Your task to perform on an android device: turn off location Image 0: 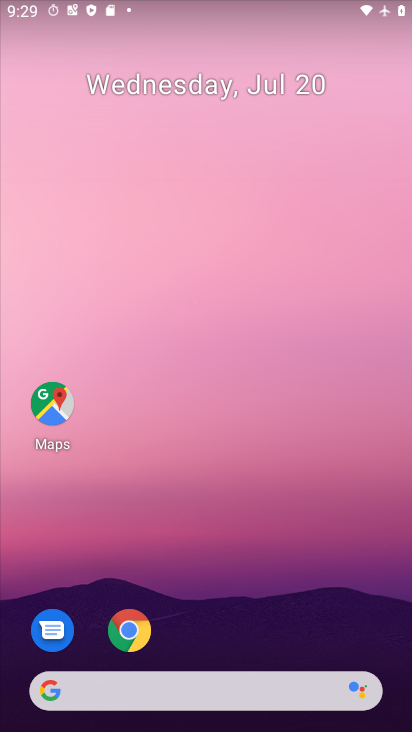
Step 0: drag from (196, 648) to (197, 201)
Your task to perform on an android device: turn off location Image 1: 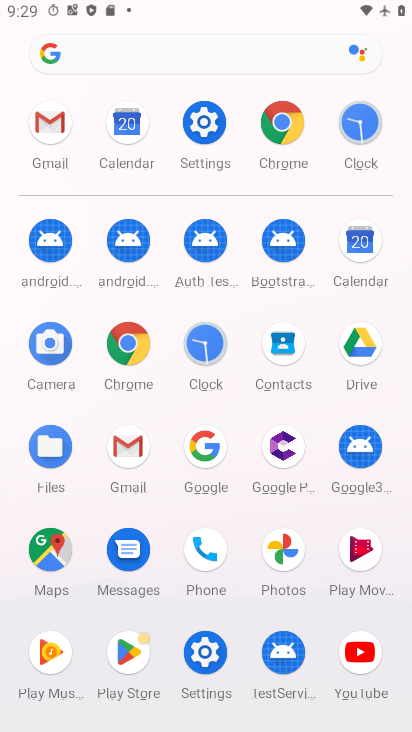
Step 1: click (210, 125)
Your task to perform on an android device: turn off location Image 2: 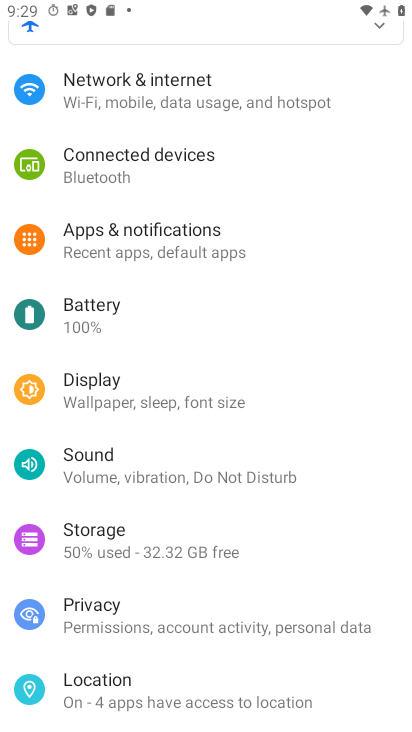
Step 2: drag from (214, 385) to (234, 590)
Your task to perform on an android device: turn off location Image 3: 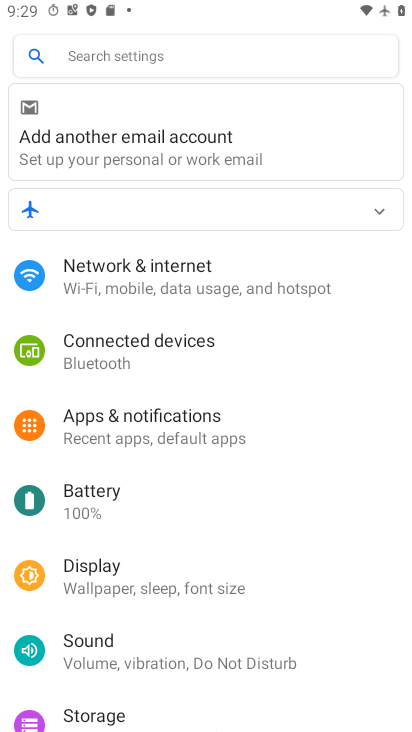
Step 3: drag from (160, 613) to (227, 258)
Your task to perform on an android device: turn off location Image 4: 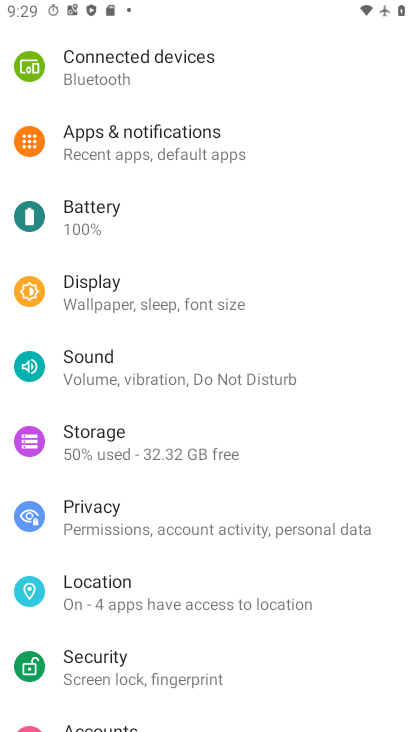
Step 4: click (204, 600)
Your task to perform on an android device: turn off location Image 5: 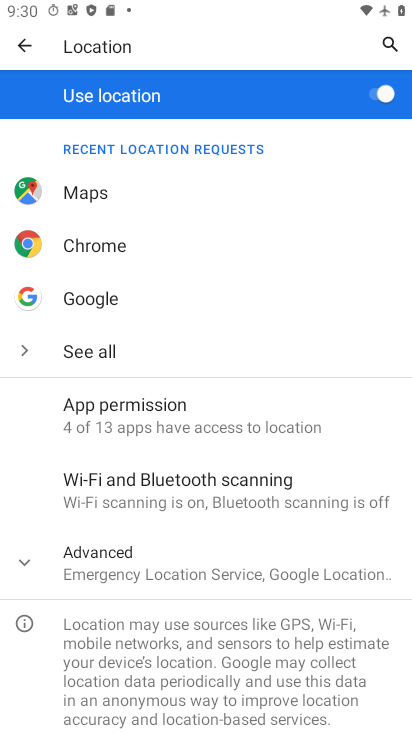
Step 5: click (371, 96)
Your task to perform on an android device: turn off location Image 6: 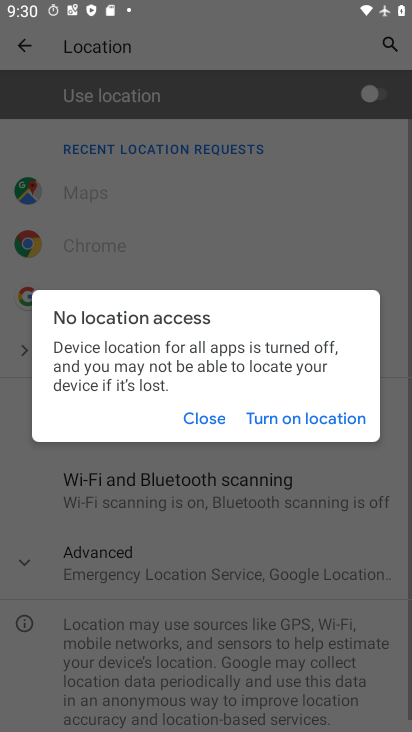
Step 6: task complete